Your task to perform on an android device: Search for Italian restaurants on Maps Image 0: 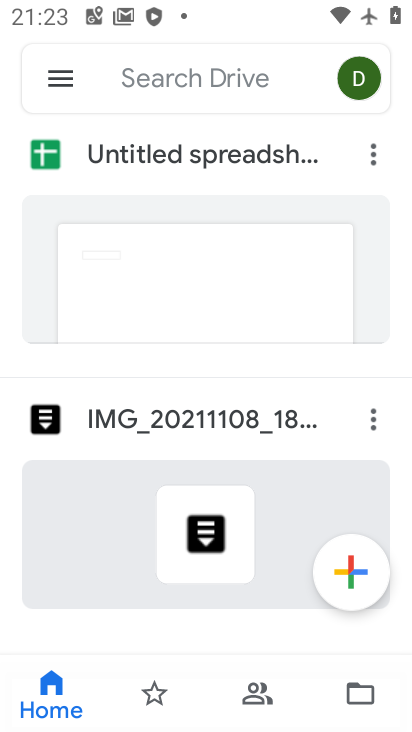
Step 0: press home button
Your task to perform on an android device: Search for Italian restaurants on Maps Image 1: 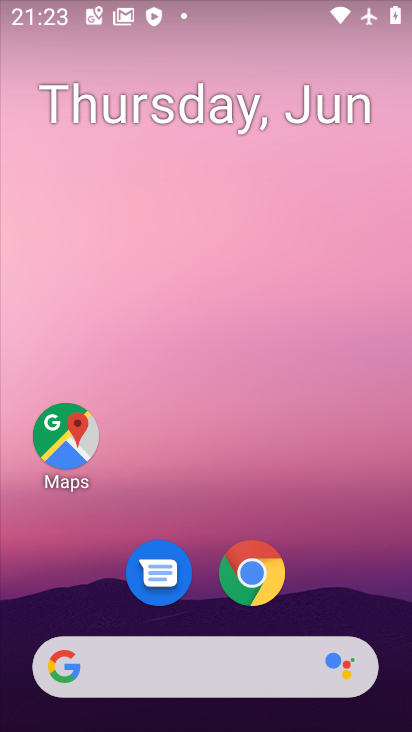
Step 1: drag from (213, 608) to (206, 318)
Your task to perform on an android device: Search for Italian restaurants on Maps Image 2: 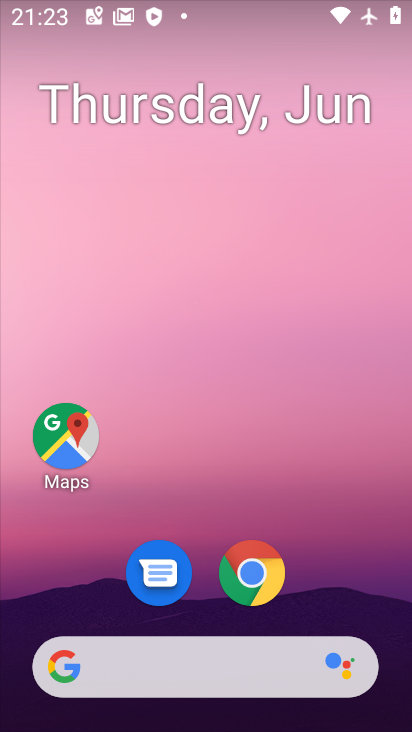
Step 2: click (57, 424)
Your task to perform on an android device: Search for Italian restaurants on Maps Image 3: 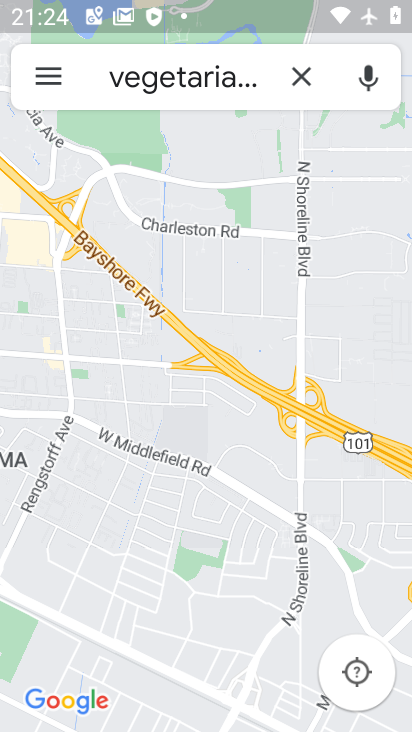
Step 3: click (295, 74)
Your task to perform on an android device: Search for Italian restaurants on Maps Image 4: 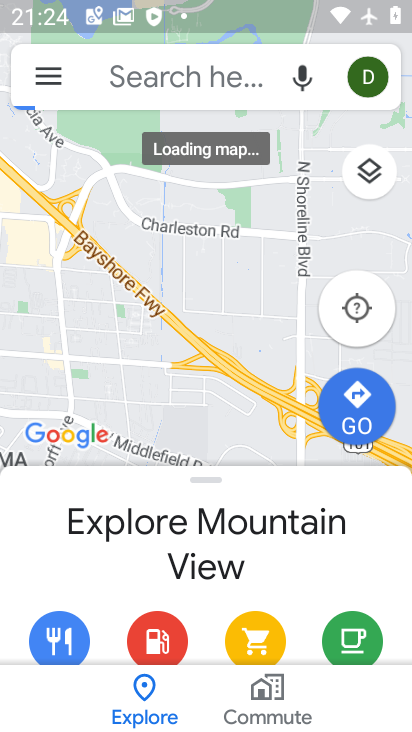
Step 4: click (154, 69)
Your task to perform on an android device: Search for Italian restaurants on Maps Image 5: 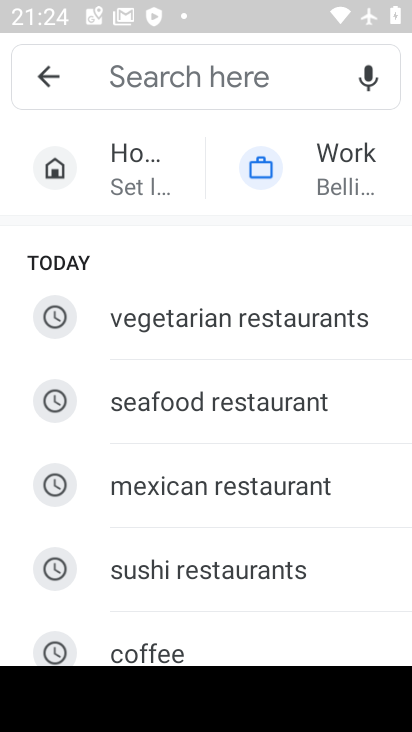
Step 5: type " Italian restaurants "
Your task to perform on an android device: Search for Italian restaurants on Maps Image 6: 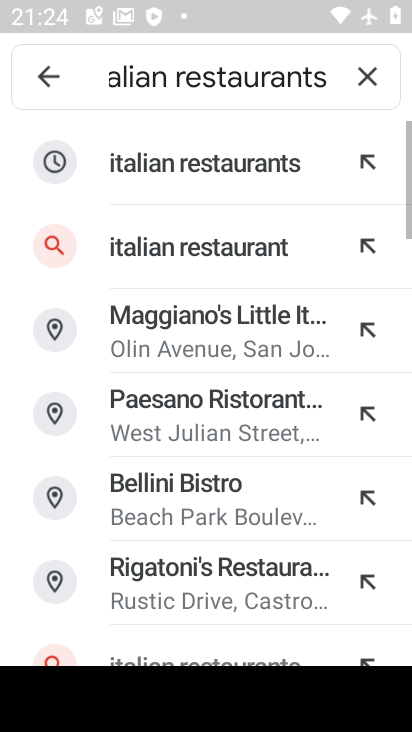
Step 6: click (226, 166)
Your task to perform on an android device: Search for Italian restaurants on Maps Image 7: 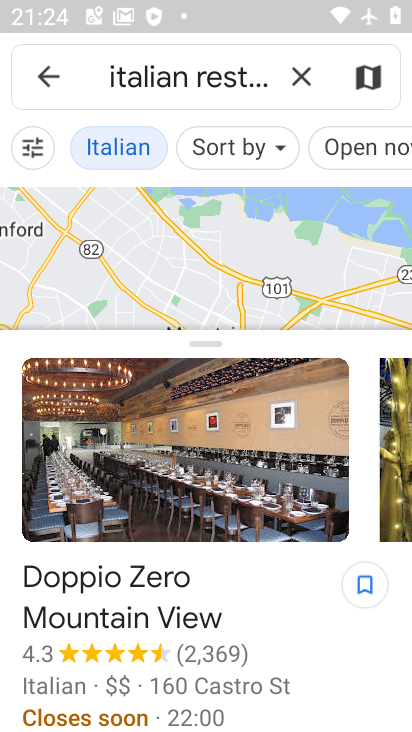
Step 7: task complete